Your task to perform on an android device: Open the calendar and show me this week's events? Image 0: 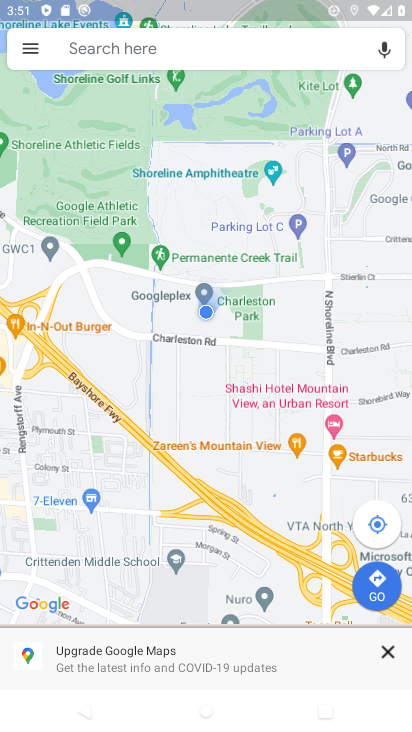
Step 0: press home button
Your task to perform on an android device: Open the calendar and show me this week's events? Image 1: 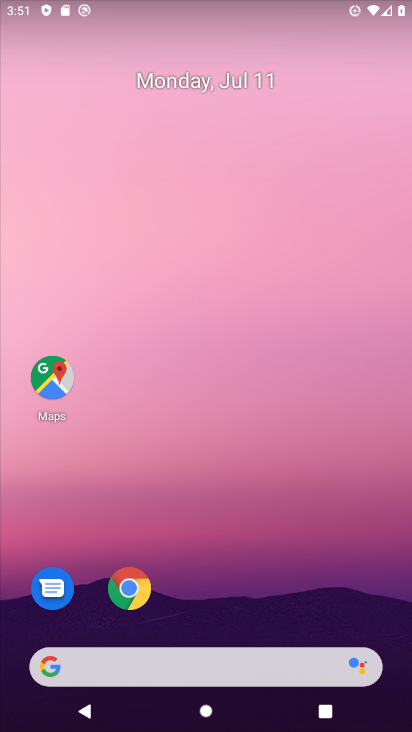
Step 1: drag from (253, 630) to (175, 4)
Your task to perform on an android device: Open the calendar and show me this week's events? Image 2: 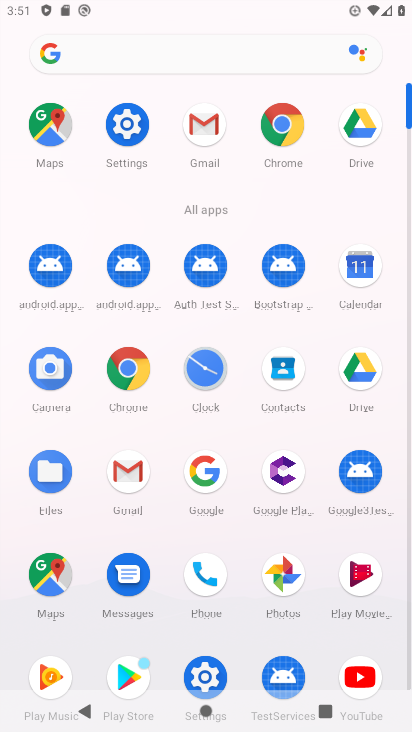
Step 2: click (358, 278)
Your task to perform on an android device: Open the calendar and show me this week's events? Image 3: 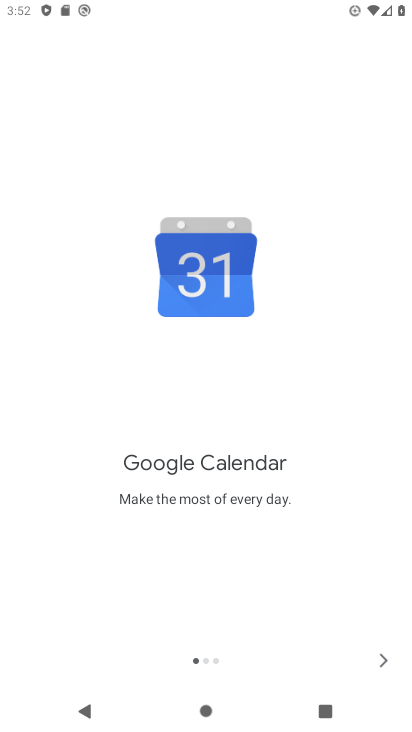
Step 3: click (387, 662)
Your task to perform on an android device: Open the calendar and show me this week's events? Image 4: 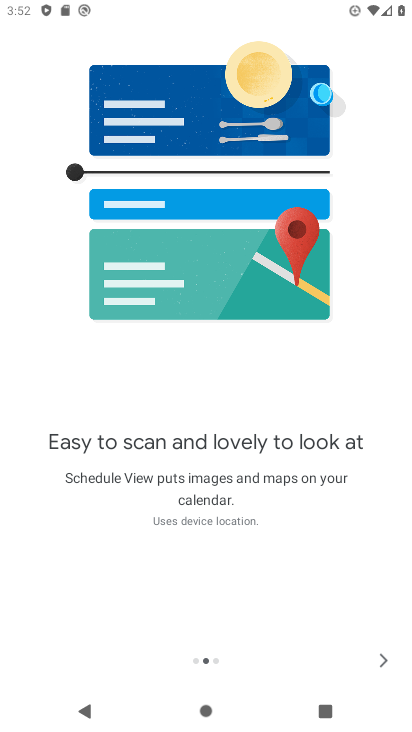
Step 4: click (392, 662)
Your task to perform on an android device: Open the calendar and show me this week's events? Image 5: 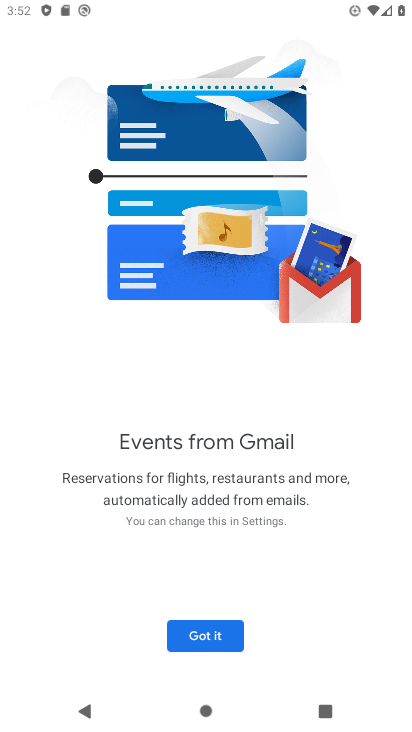
Step 5: click (181, 639)
Your task to perform on an android device: Open the calendar and show me this week's events? Image 6: 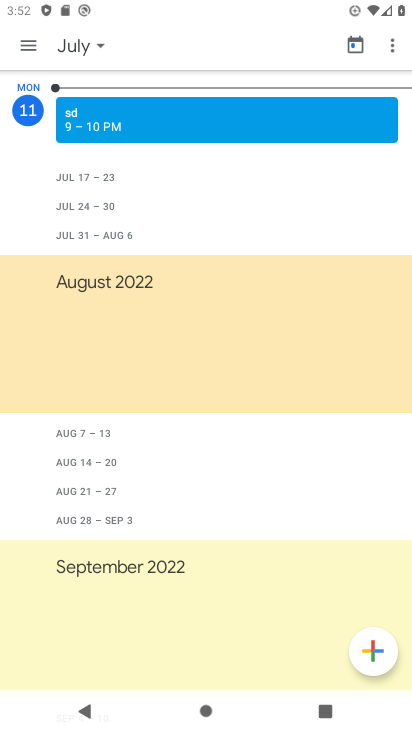
Step 6: click (69, 44)
Your task to perform on an android device: Open the calendar and show me this week's events? Image 7: 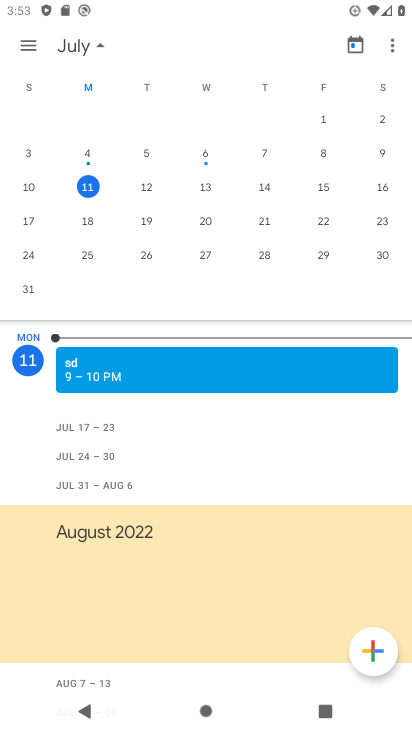
Step 7: task complete